Your task to perform on an android device: turn on the 12-hour format for clock Image 0: 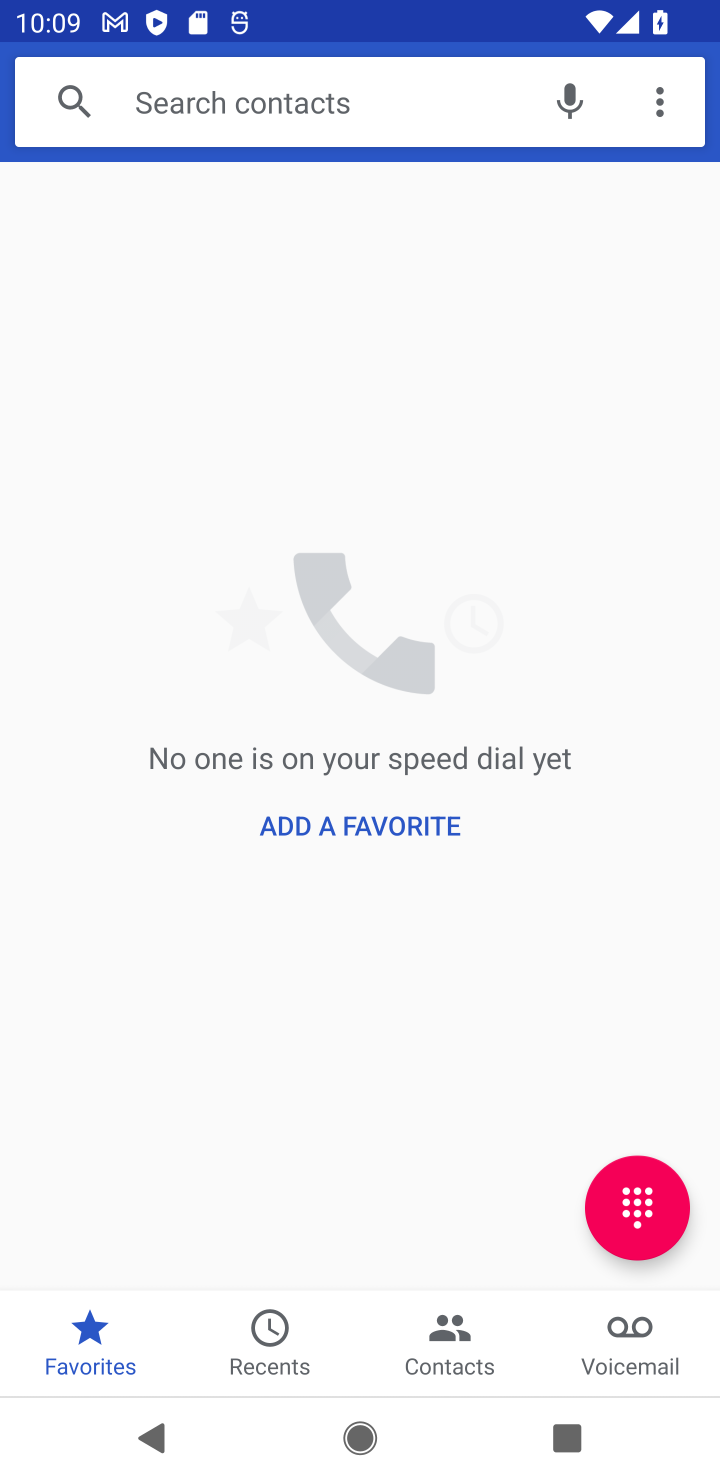
Step 0: press home button
Your task to perform on an android device: turn on the 12-hour format for clock Image 1: 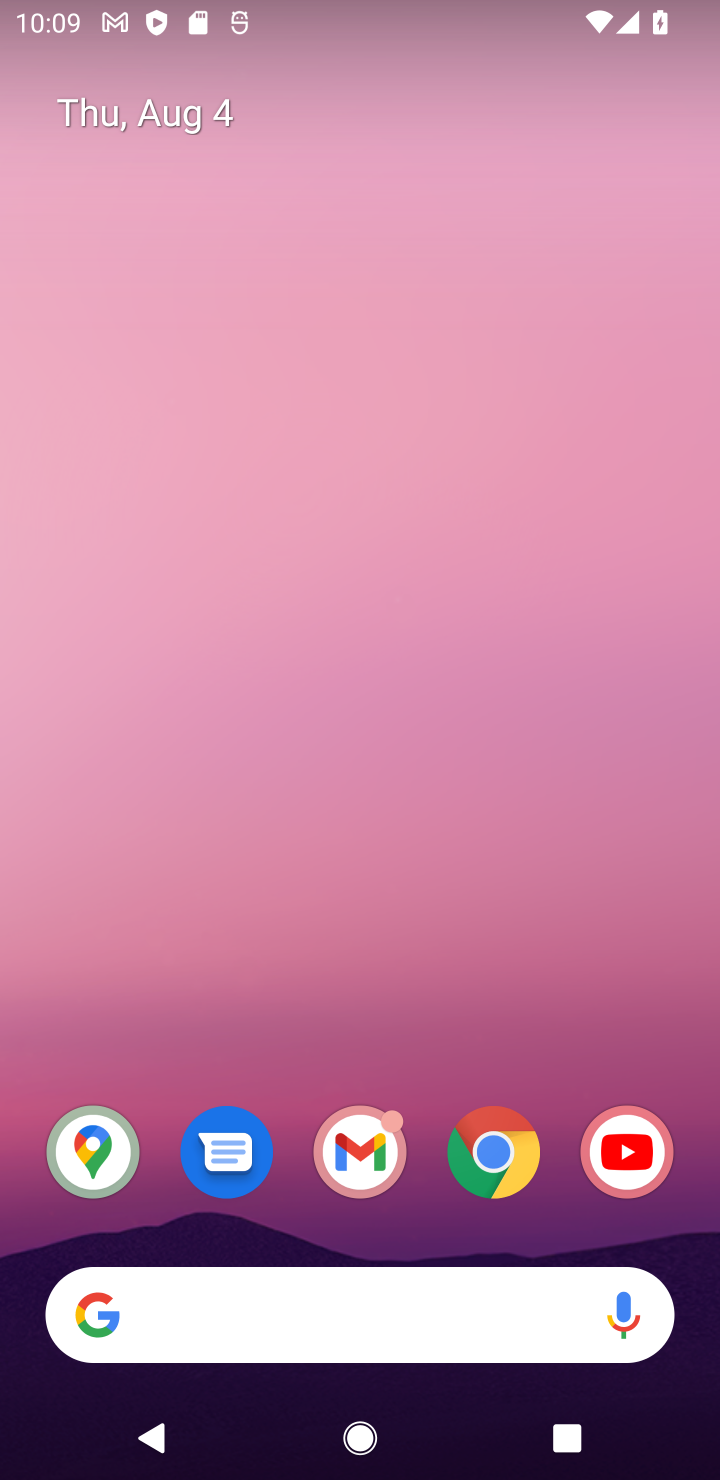
Step 1: drag from (376, 996) to (389, 6)
Your task to perform on an android device: turn on the 12-hour format for clock Image 2: 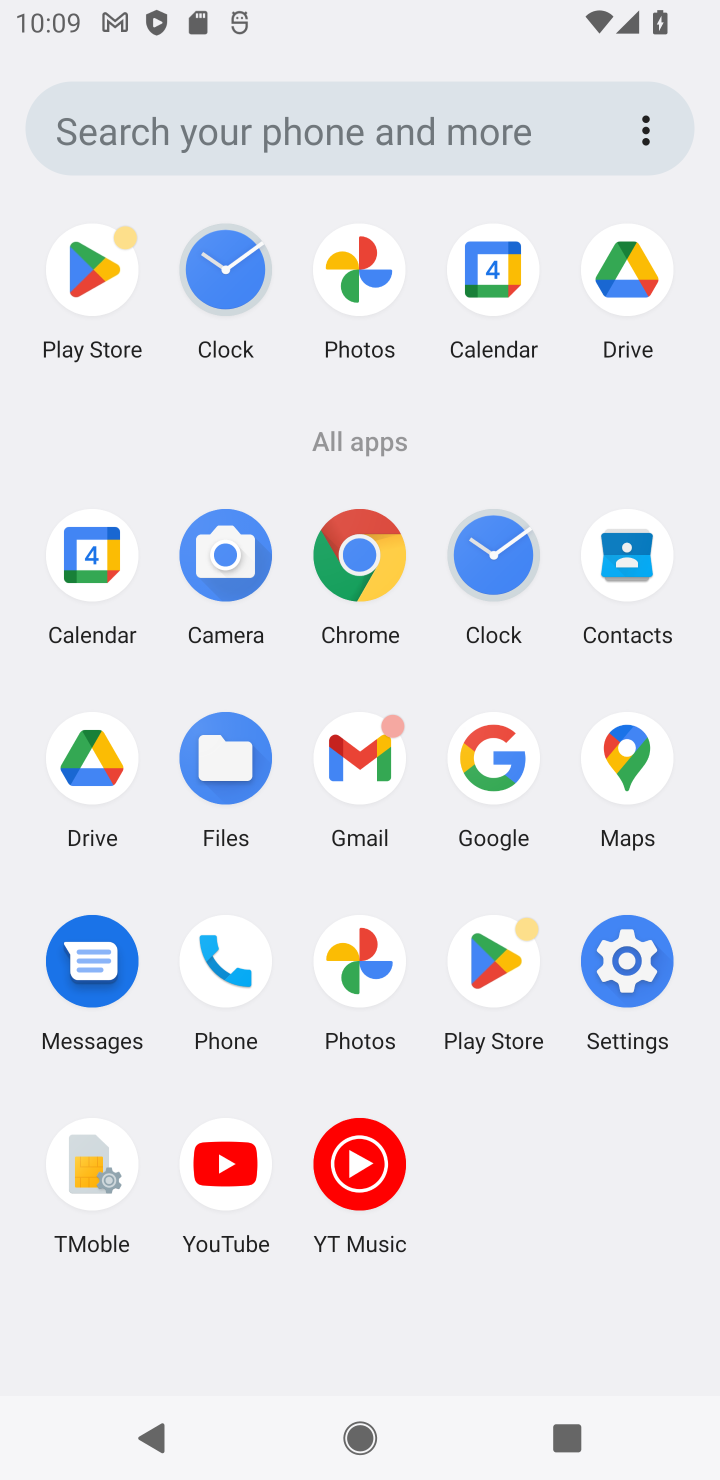
Step 2: click (636, 958)
Your task to perform on an android device: turn on the 12-hour format for clock Image 3: 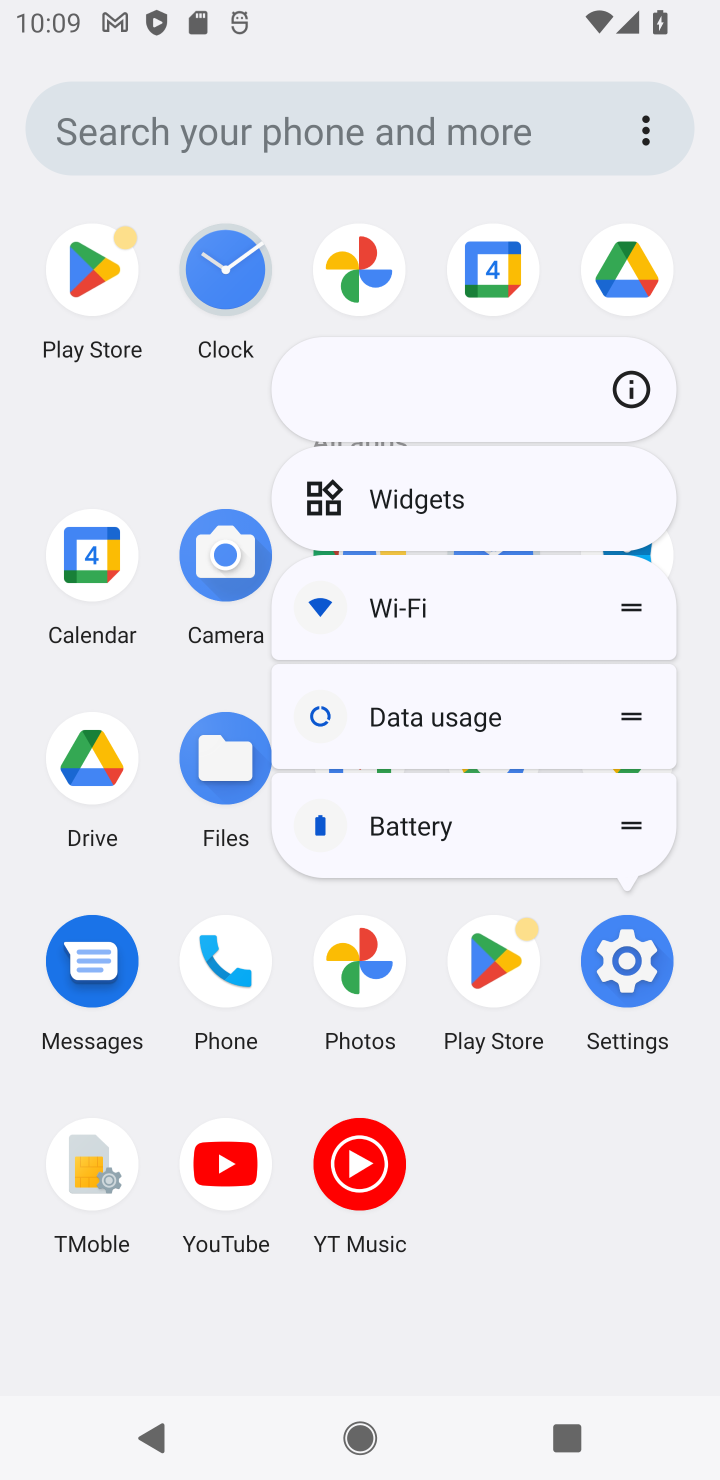
Step 3: click (615, 994)
Your task to perform on an android device: turn on the 12-hour format for clock Image 4: 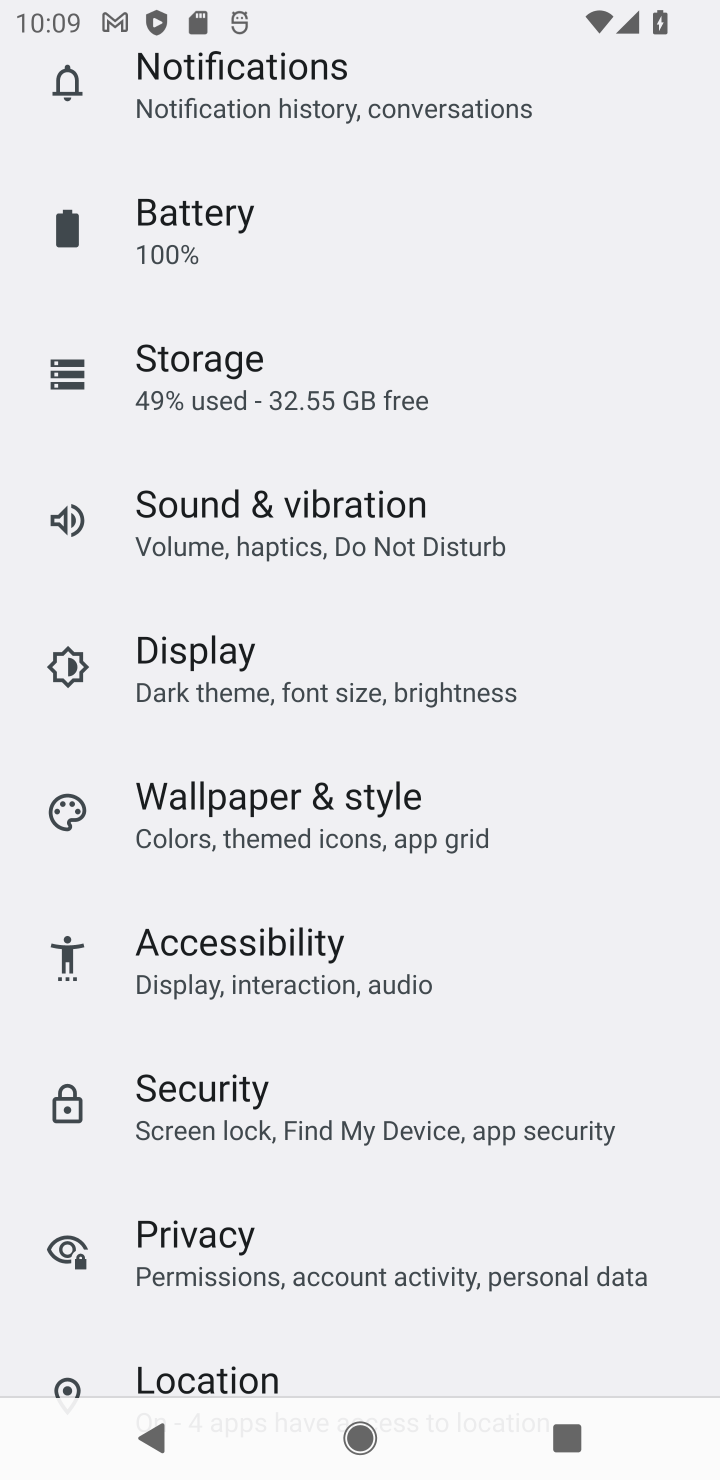
Step 4: drag from (293, 1066) to (345, 475)
Your task to perform on an android device: turn on the 12-hour format for clock Image 5: 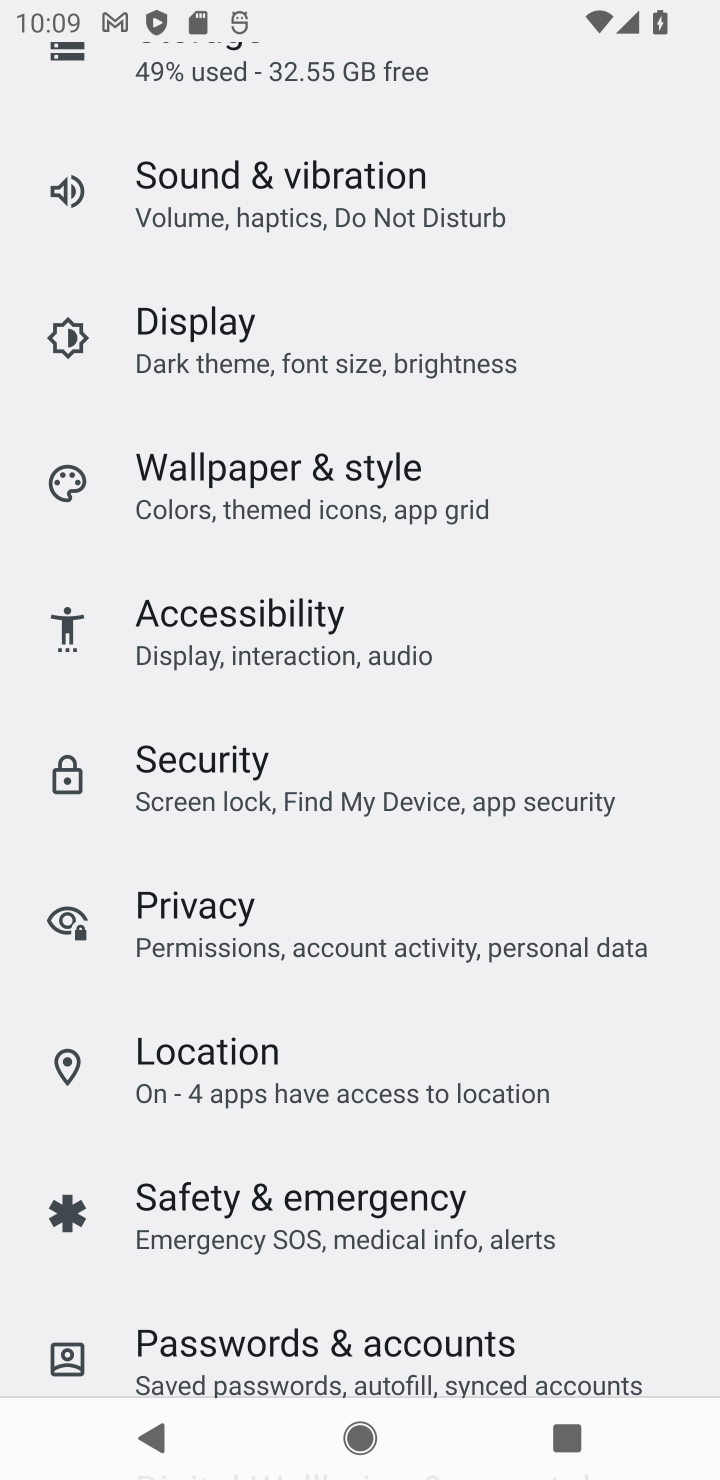
Step 5: drag from (415, 1158) to (443, 590)
Your task to perform on an android device: turn on the 12-hour format for clock Image 6: 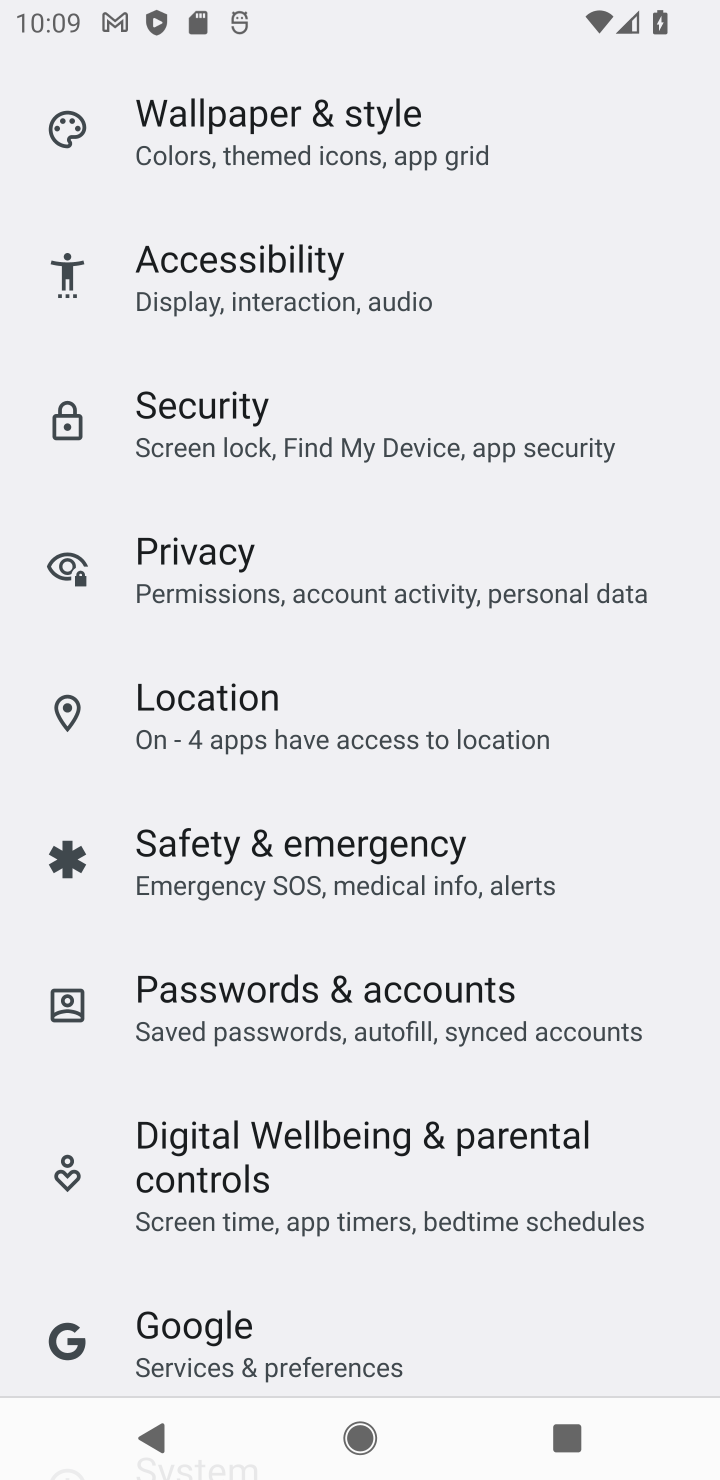
Step 6: drag from (306, 1190) to (326, 814)
Your task to perform on an android device: turn on the 12-hour format for clock Image 7: 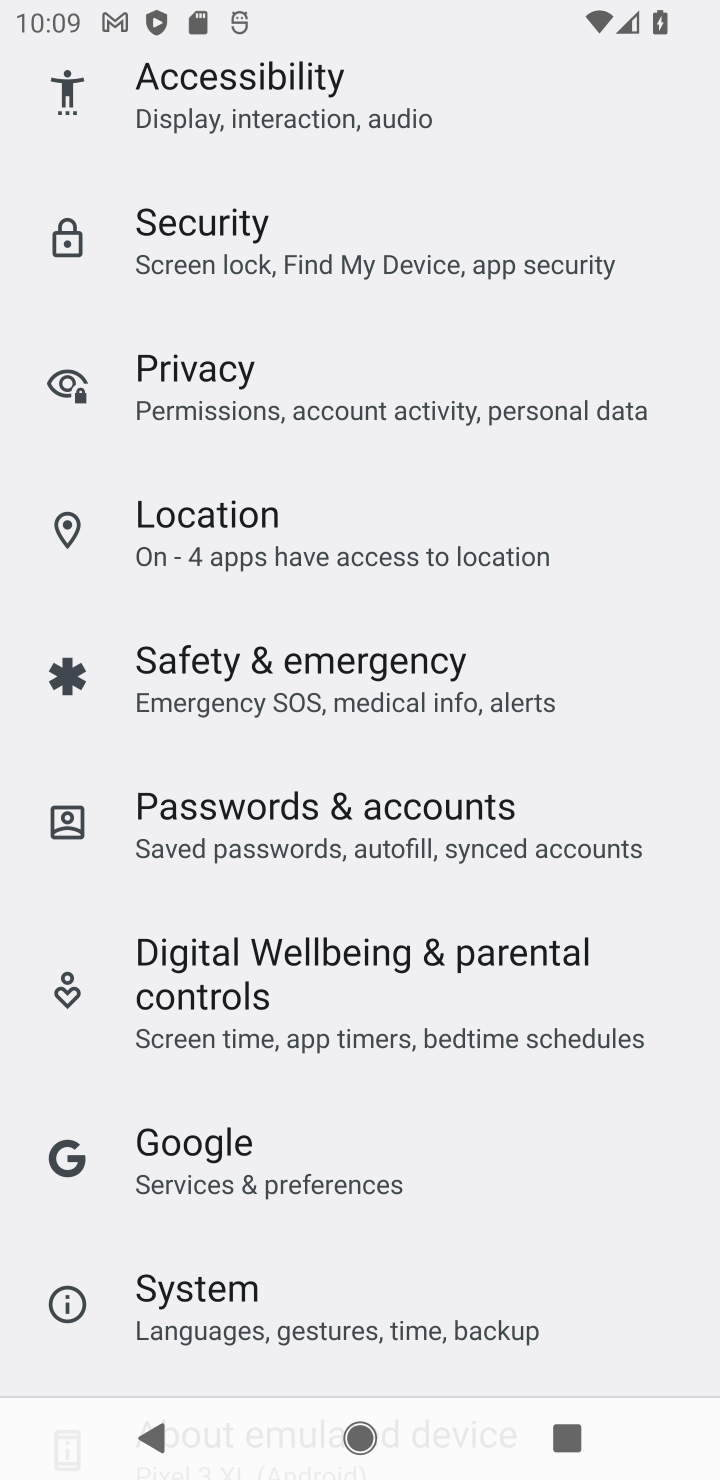
Step 7: click (219, 1316)
Your task to perform on an android device: turn on the 12-hour format for clock Image 8: 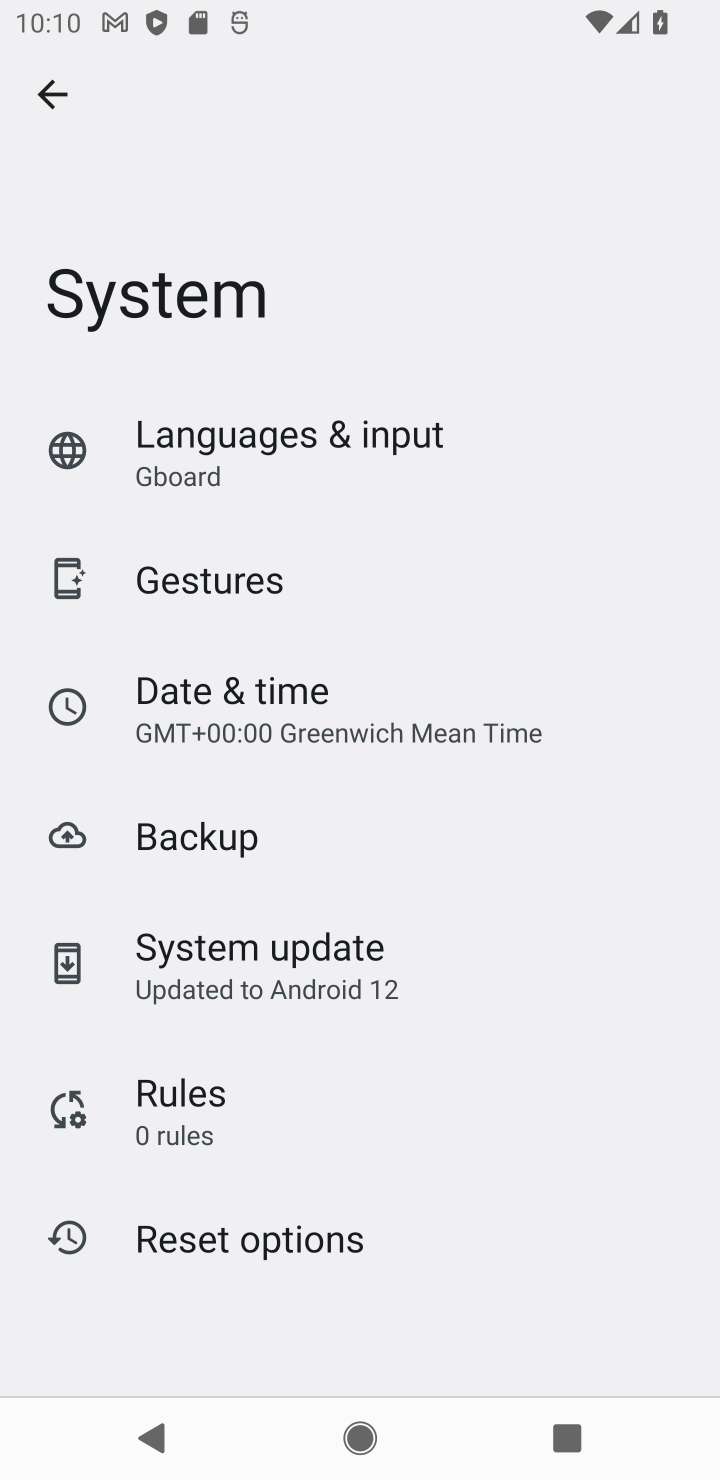
Step 8: click (243, 721)
Your task to perform on an android device: turn on the 12-hour format for clock Image 9: 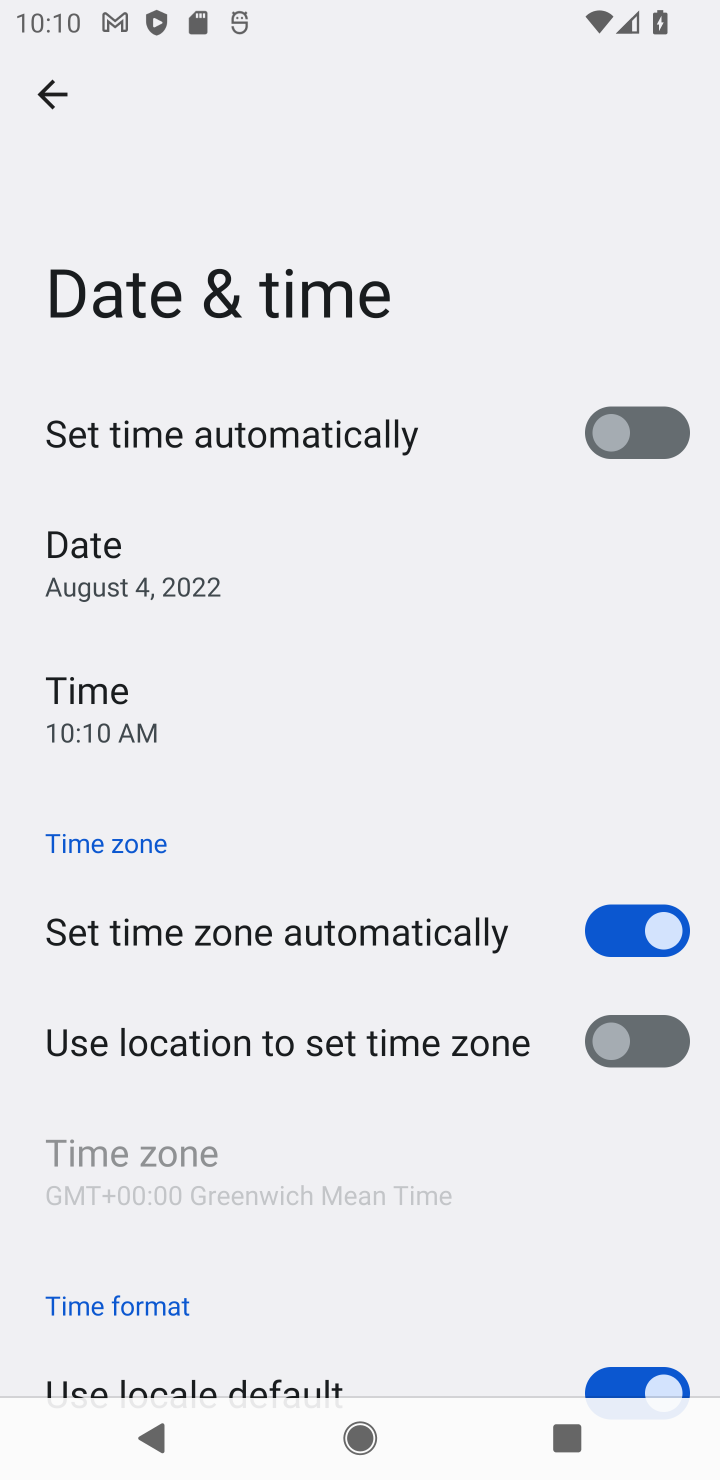
Step 9: task complete